Your task to perform on an android device: Play the new Ariana Grande video on YouTube Image 0: 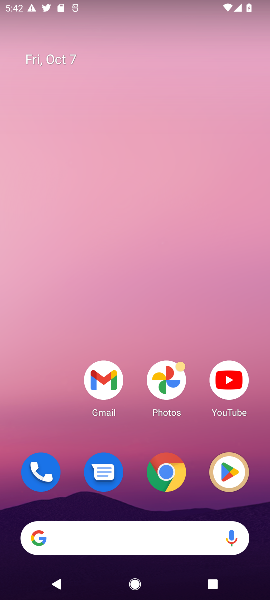
Step 0: click (173, 471)
Your task to perform on an android device: Play the new Ariana Grande video on YouTube Image 1: 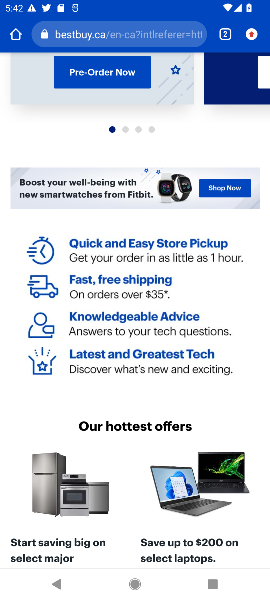
Step 1: click (104, 35)
Your task to perform on an android device: Play the new Ariana Grande video on YouTube Image 2: 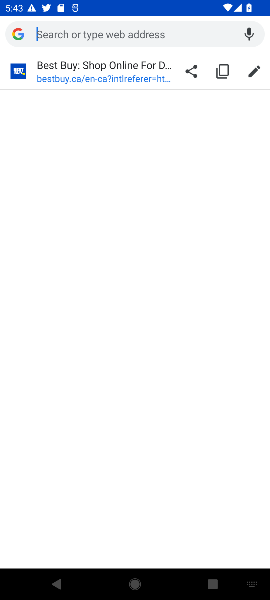
Step 2: type "new Ariana Grande video on YouTube"
Your task to perform on an android device: Play the new Ariana Grande video on YouTube Image 3: 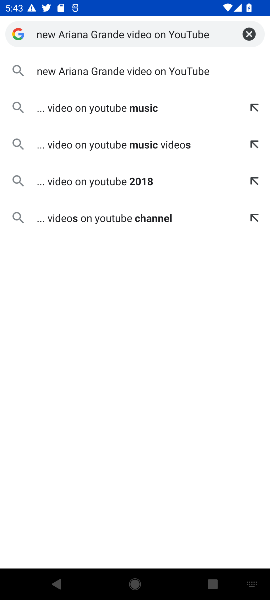
Step 3: click (191, 70)
Your task to perform on an android device: Play the new Ariana Grande video on YouTube Image 4: 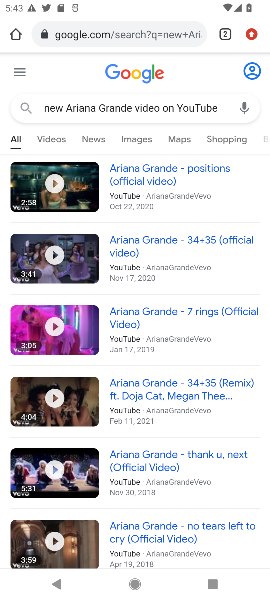
Step 4: click (56, 183)
Your task to perform on an android device: Play the new Ariana Grande video on YouTube Image 5: 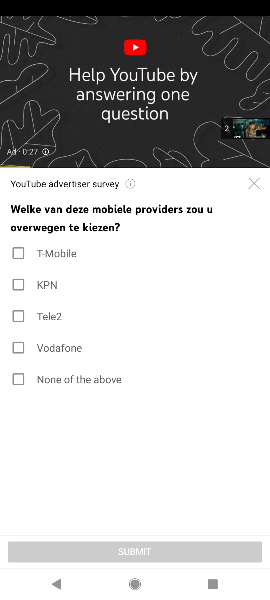
Step 5: click (252, 182)
Your task to perform on an android device: Play the new Ariana Grande video on YouTube Image 6: 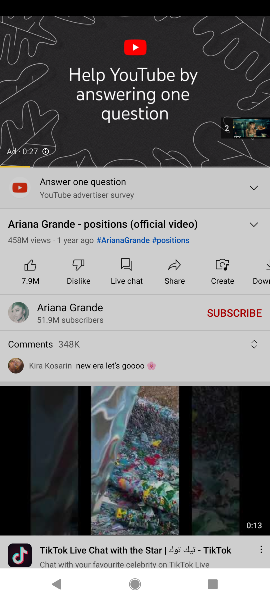
Step 6: click (252, 182)
Your task to perform on an android device: Play the new Ariana Grande video on YouTube Image 7: 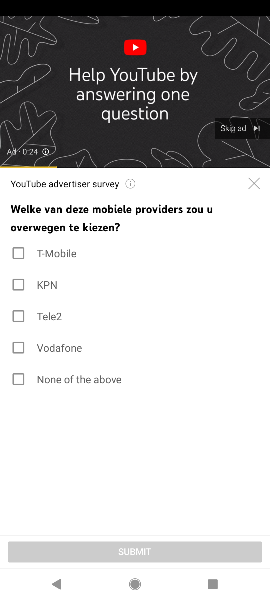
Step 7: click (243, 133)
Your task to perform on an android device: Play the new Ariana Grande video on YouTube Image 8: 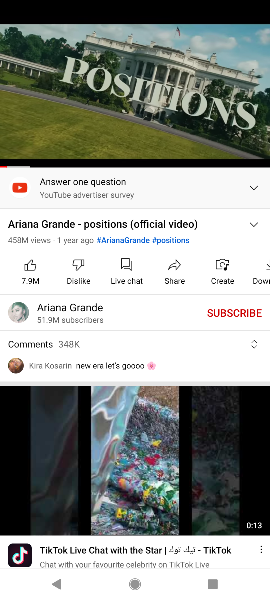
Step 8: task complete